Your task to perform on an android device: toggle priority inbox in the gmail app Image 0: 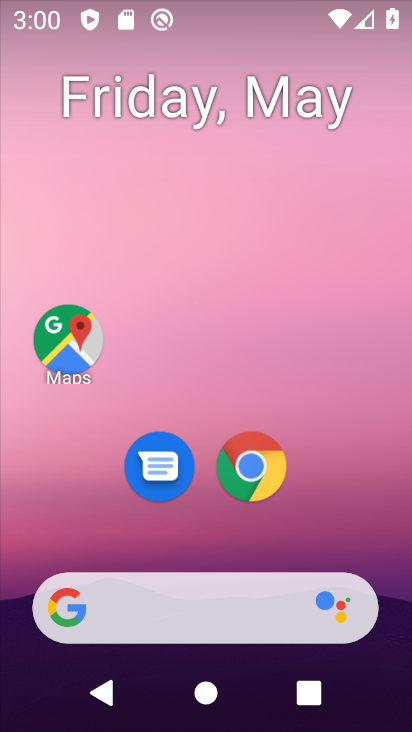
Step 0: press home button
Your task to perform on an android device: toggle priority inbox in the gmail app Image 1: 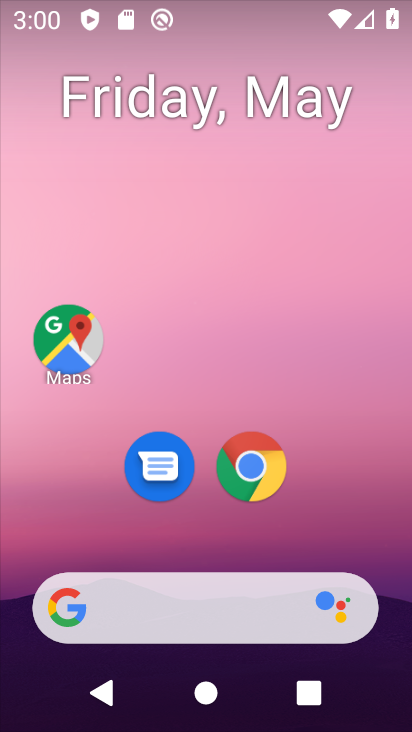
Step 1: drag from (258, 160) to (268, 62)
Your task to perform on an android device: toggle priority inbox in the gmail app Image 2: 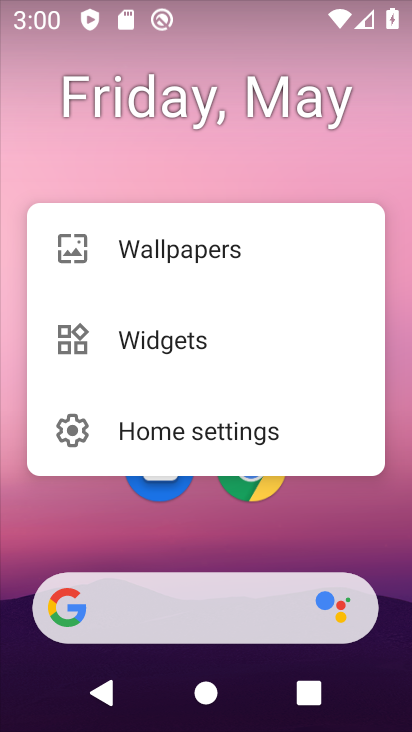
Step 2: click (243, 159)
Your task to perform on an android device: toggle priority inbox in the gmail app Image 3: 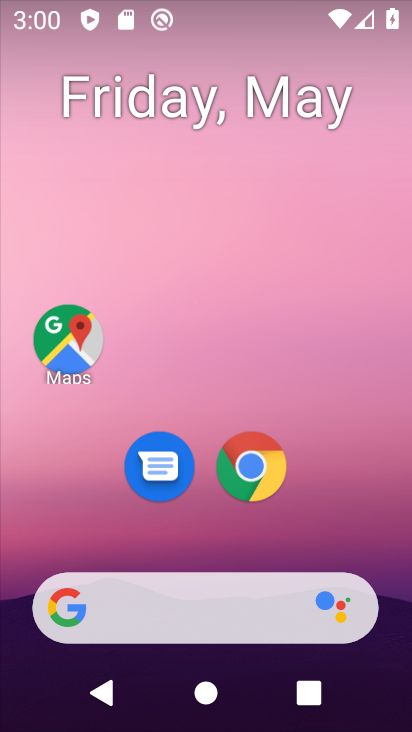
Step 3: drag from (229, 546) to (261, 46)
Your task to perform on an android device: toggle priority inbox in the gmail app Image 4: 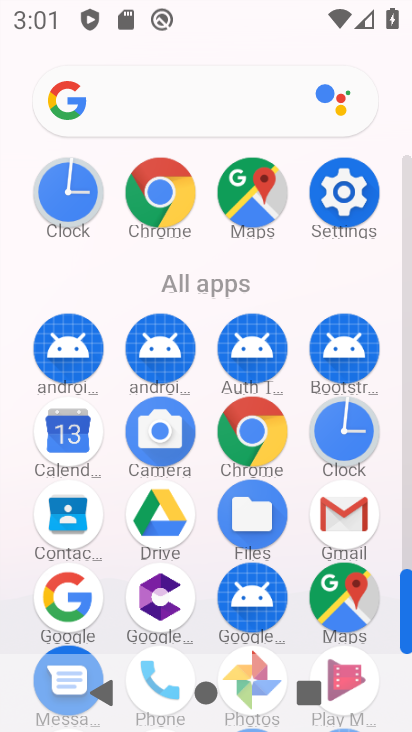
Step 4: click (344, 503)
Your task to perform on an android device: toggle priority inbox in the gmail app Image 5: 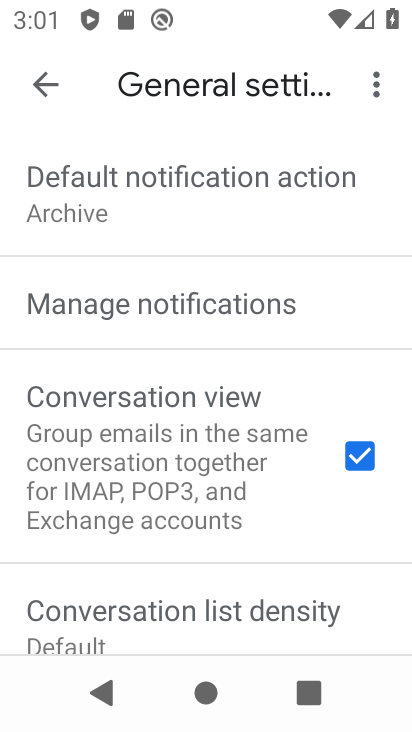
Step 5: click (53, 86)
Your task to perform on an android device: toggle priority inbox in the gmail app Image 6: 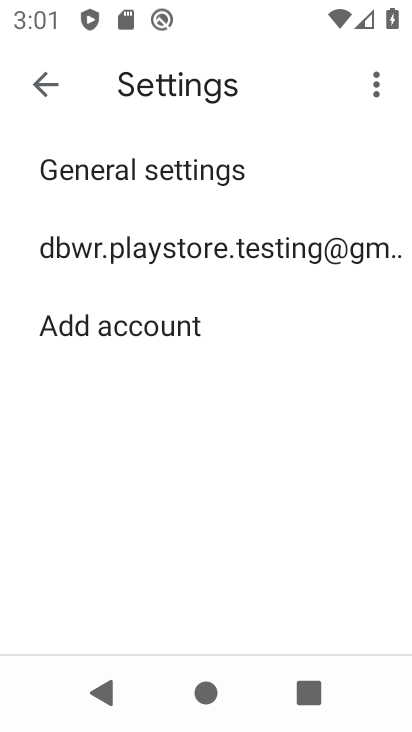
Step 6: click (197, 239)
Your task to perform on an android device: toggle priority inbox in the gmail app Image 7: 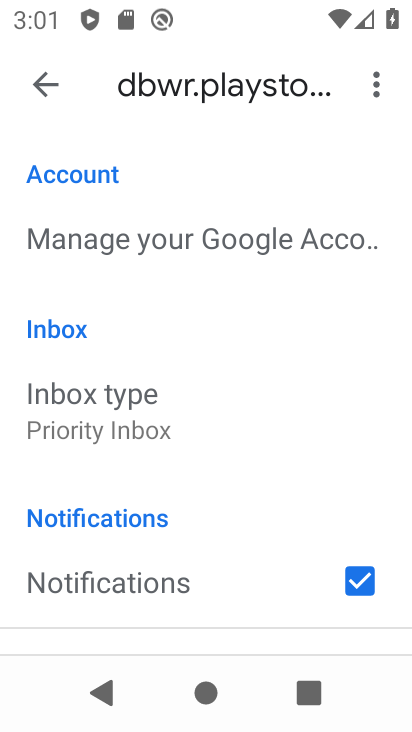
Step 7: click (154, 405)
Your task to perform on an android device: toggle priority inbox in the gmail app Image 8: 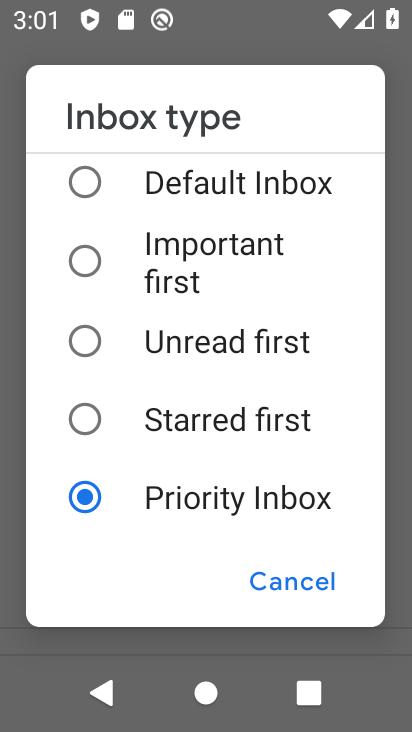
Step 8: task complete